Your task to perform on an android device: Go to ESPN.com Image 0: 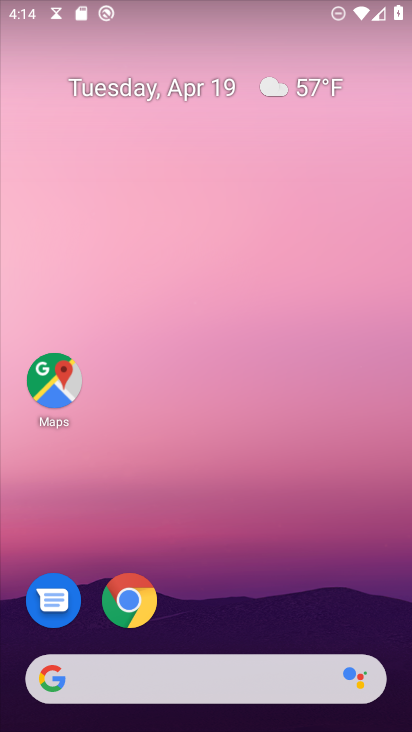
Step 0: drag from (367, 547) to (318, 97)
Your task to perform on an android device: Go to ESPN.com Image 1: 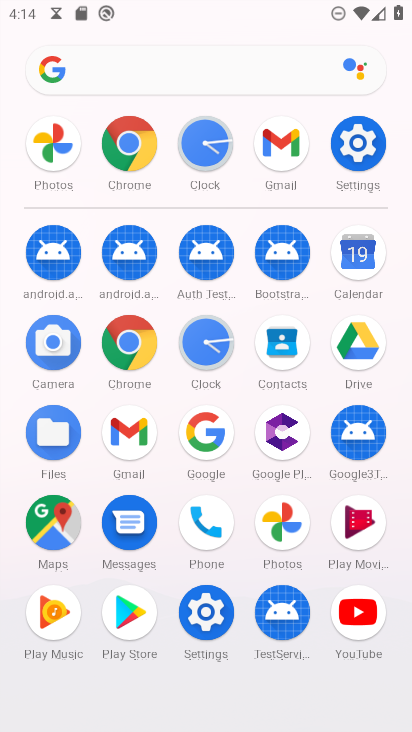
Step 1: click (128, 166)
Your task to perform on an android device: Go to ESPN.com Image 2: 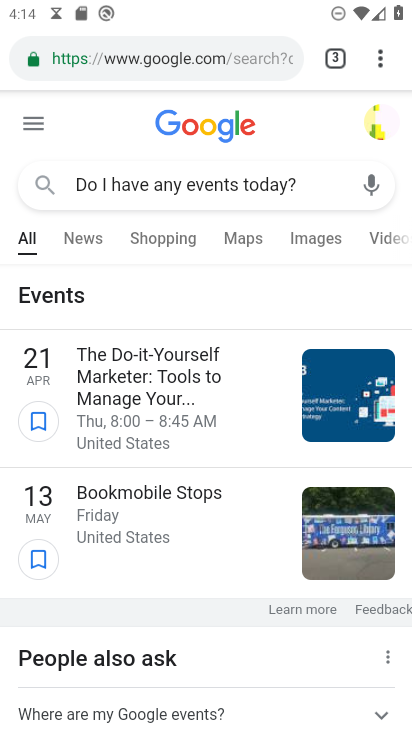
Step 2: click (233, 54)
Your task to perform on an android device: Go to ESPN.com Image 3: 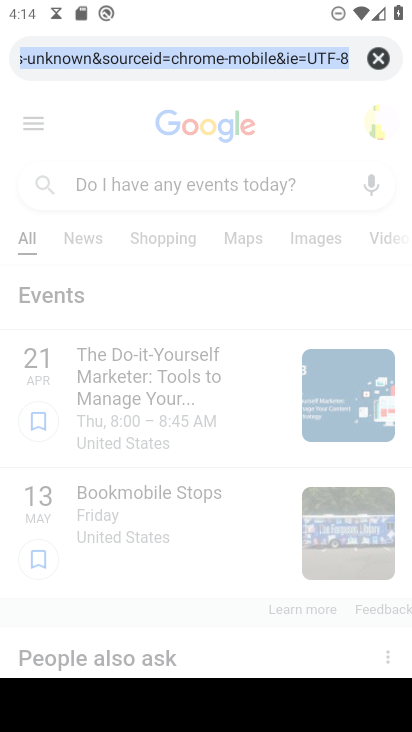
Step 3: type "espn"
Your task to perform on an android device: Go to ESPN.com Image 4: 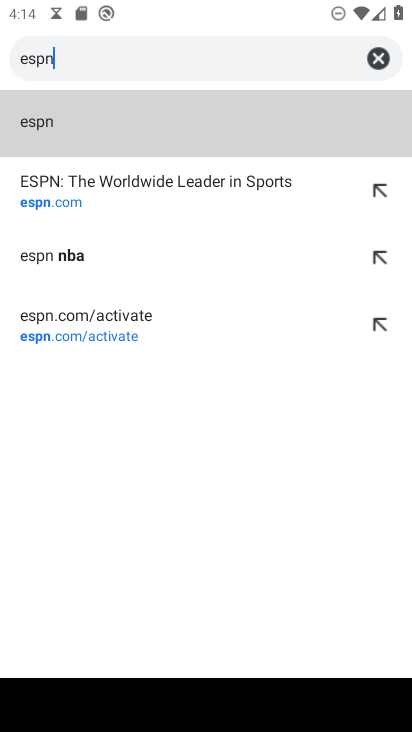
Step 4: click (199, 203)
Your task to perform on an android device: Go to ESPN.com Image 5: 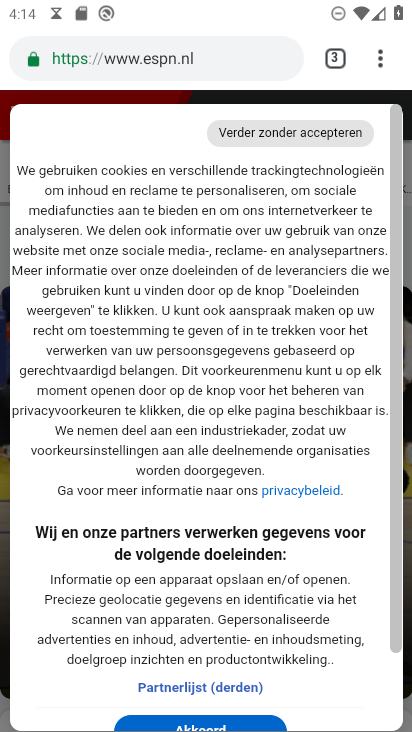
Step 5: task complete